Your task to perform on an android device: Open the phone app and click the voicemail tab. Image 0: 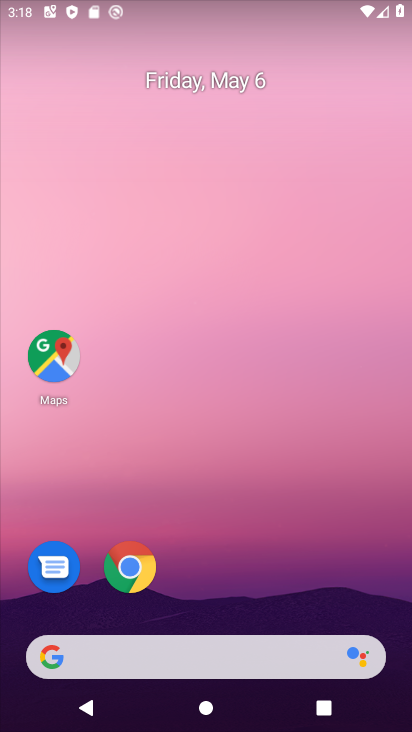
Step 0: drag from (133, 618) to (151, 284)
Your task to perform on an android device: Open the phone app and click the voicemail tab. Image 1: 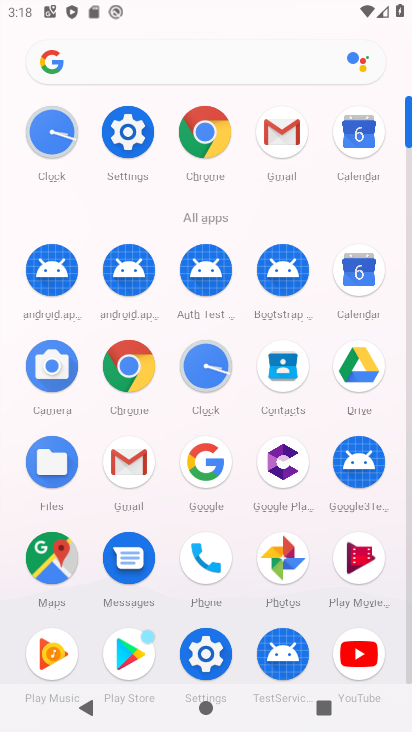
Step 1: click (199, 554)
Your task to perform on an android device: Open the phone app and click the voicemail tab. Image 2: 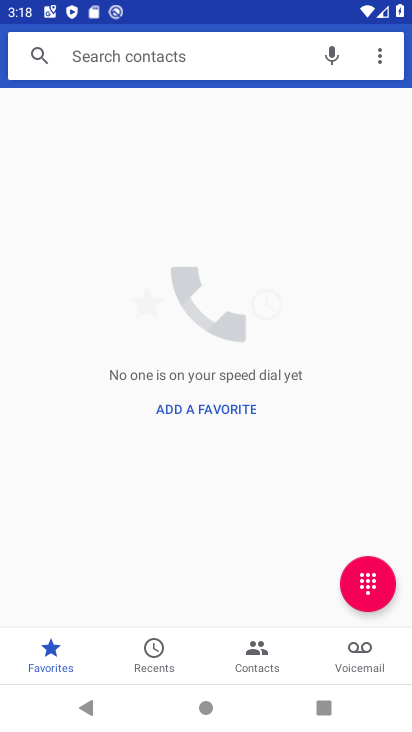
Step 2: click (375, 647)
Your task to perform on an android device: Open the phone app and click the voicemail tab. Image 3: 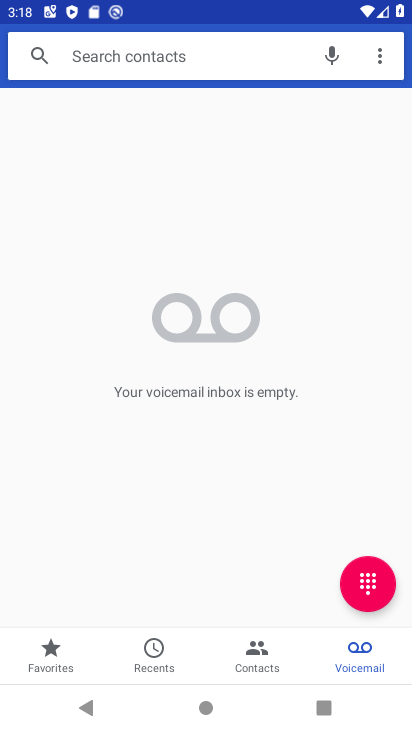
Step 3: task complete